Your task to perform on an android device: Add usb-c to the cart on newegg, then select checkout. Image 0: 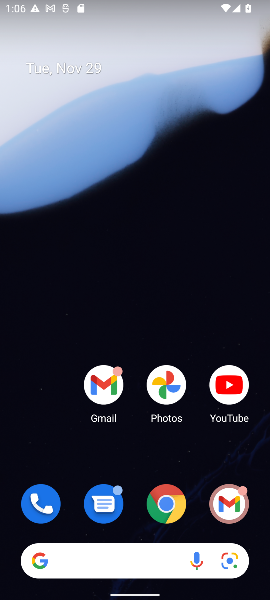
Step 0: click (164, 506)
Your task to perform on an android device: Add usb-c to the cart on newegg, then select checkout. Image 1: 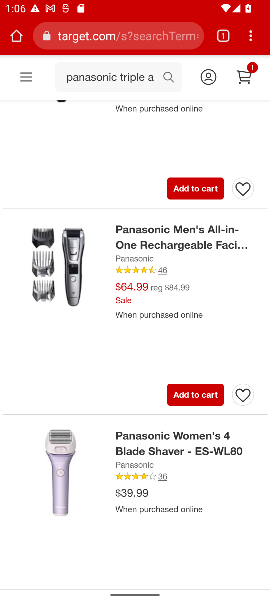
Step 1: click (101, 39)
Your task to perform on an android device: Add usb-c to the cart on newegg, then select checkout. Image 2: 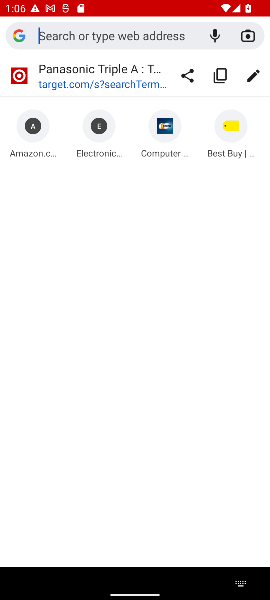
Step 2: click (167, 148)
Your task to perform on an android device: Add usb-c to the cart on newegg, then select checkout. Image 3: 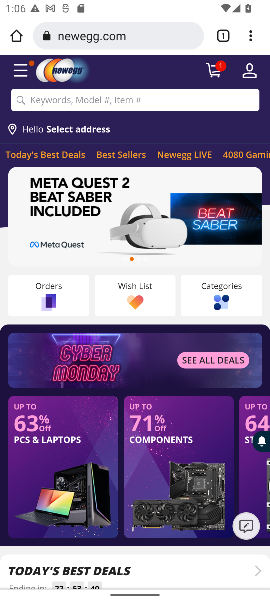
Step 3: click (51, 98)
Your task to perform on an android device: Add usb-c to the cart on newegg, then select checkout. Image 4: 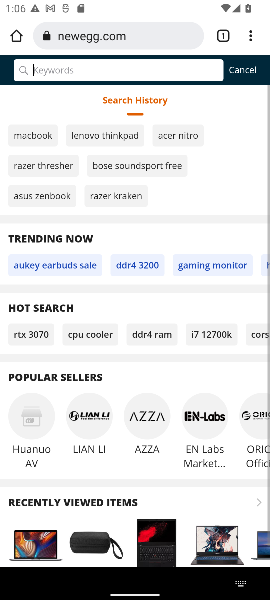
Step 4: type "usb-c"
Your task to perform on an android device: Add usb-c to the cart on newegg, then select checkout. Image 5: 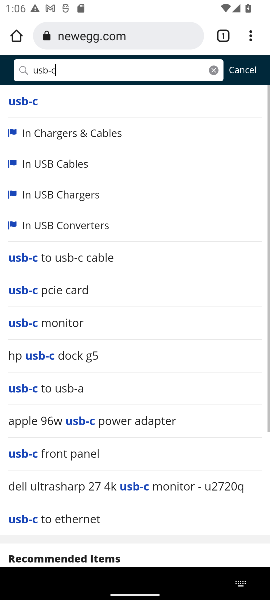
Step 5: click (28, 101)
Your task to perform on an android device: Add usb-c to the cart on newegg, then select checkout. Image 6: 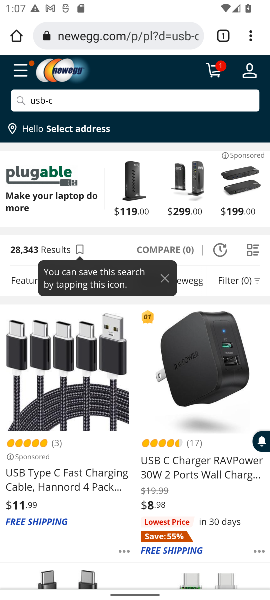
Step 6: click (64, 394)
Your task to perform on an android device: Add usb-c to the cart on newegg, then select checkout. Image 7: 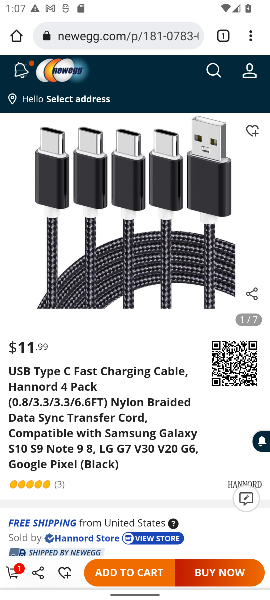
Step 7: click (119, 567)
Your task to perform on an android device: Add usb-c to the cart on newegg, then select checkout. Image 8: 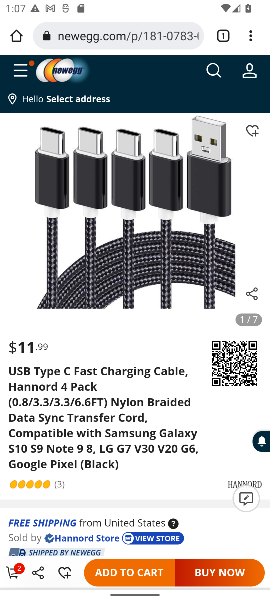
Step 8: click (8, 572)
Your task to perform on an android device: Add usb-c to the cart on newegg, then select checkout. Image 9: 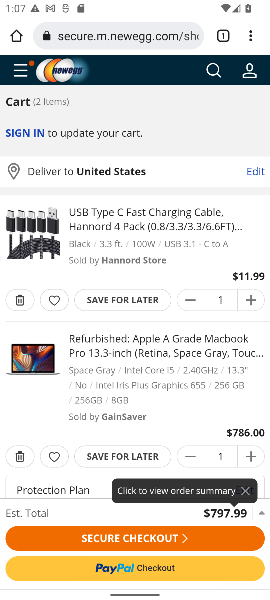
Step 9: click (128, 534)
Your task to perform on an android device: Add usb-c to the cart on newegg, then select checkout. Image 10: 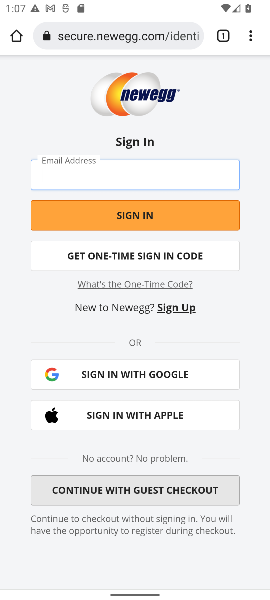
Step 10: task complete